Your task to perform on an android device: toggle priority inbox in the gmail app Image 0: 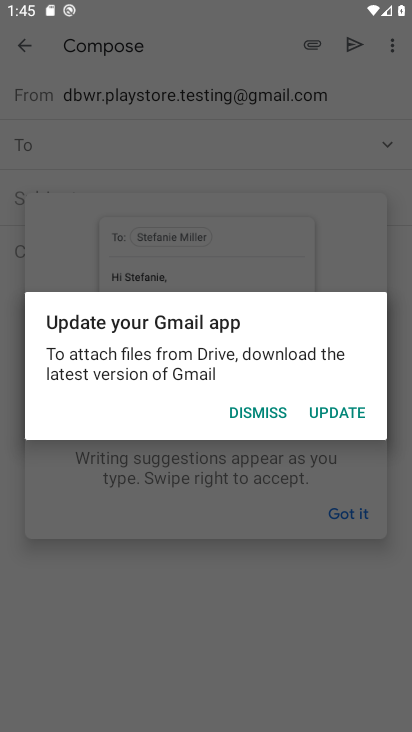
Step 0: press home button
Your task to perform on an android device: toggle priority inbox in the gmail app Image 1: 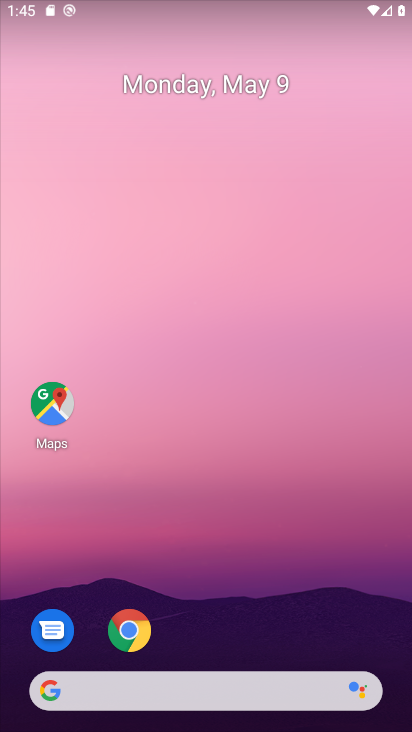
Step 1: drag from (216, 621) to (314, 74)
Your task to perform on an android device: toggle priority inbox in the gmail app Image 2: 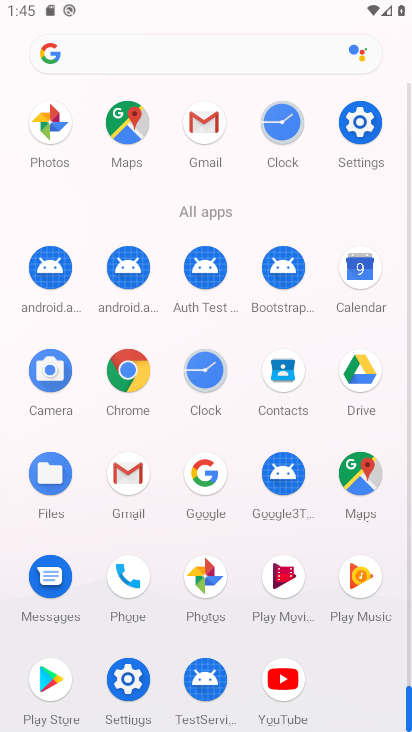
Step 2: click (135, 475)
Your task to perform on an android device: toggle priority inbox in the gmail app Image 3: 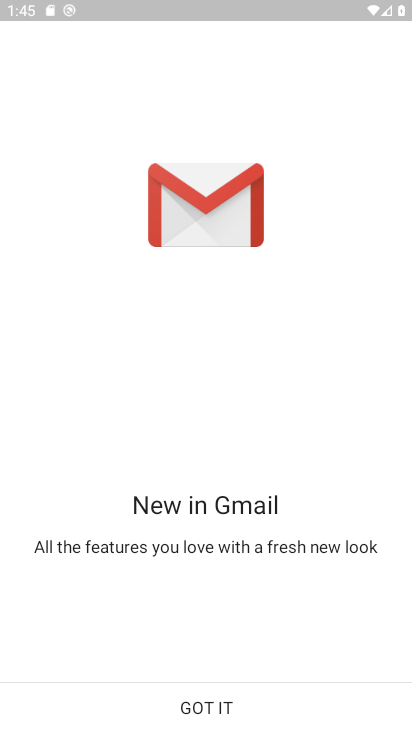
Step 3: click (247, 705)
Your task to perform on an android device: toggle priority inbox in the gmail app Image 4: 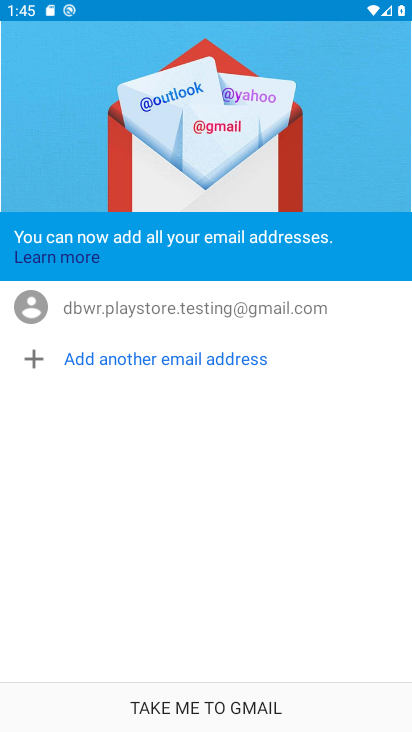
Step 4: click (247, 705)
Your task to perform on an android device: toggle priority inbox in the gmail app Image 5: 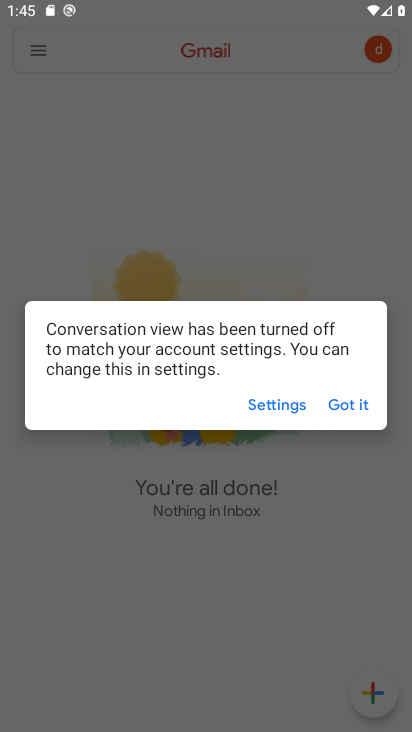
Step 5: click (352, 406)
Your task to perform on an android device: toggle priority inbox in the gmail app Image 6: 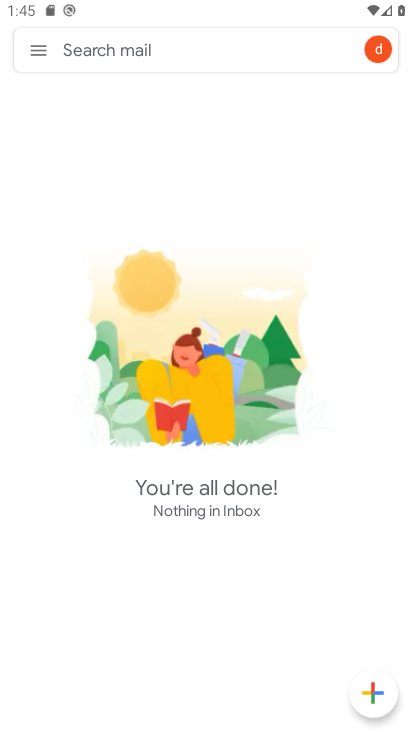
Step 6: click (42, 58)
Your task to perform on an android device: toggle priority inbox in the gmail app Image 7: 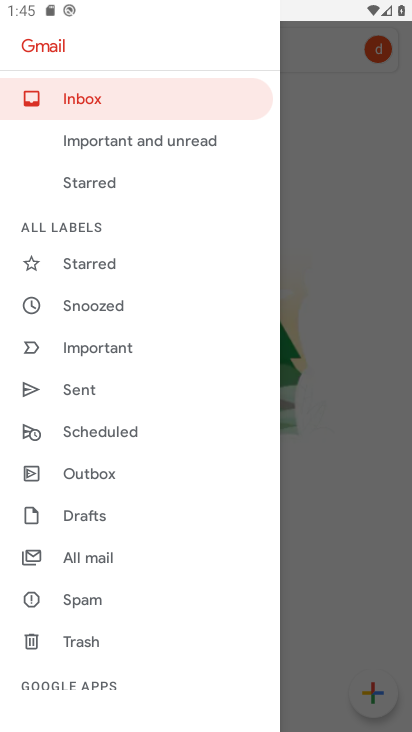
Step 7: drag from (73, 654) to (128, 374)
Your task to perform on an android device: toggle priority inbox in the gmail app Image 8: 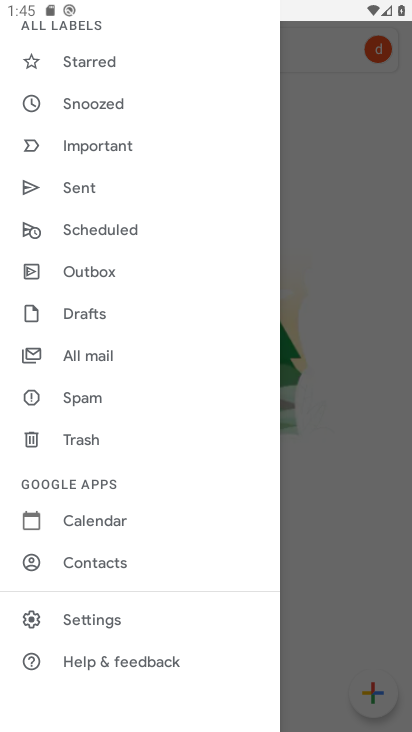
Step 8: drag from (107, 611) to (132, 395)
Your task to perform on an android device: toggle priority inbox in the gmail app Image 9: 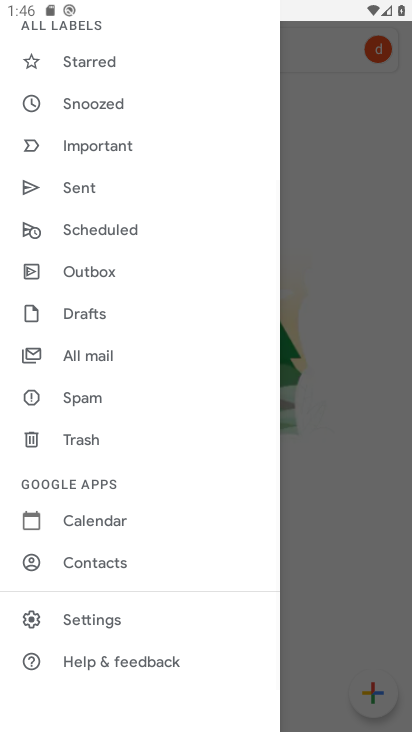
Step 9: click (82, 616)
Your task to perform on an android device: toggle priority inbox in the gmail app Image 10: 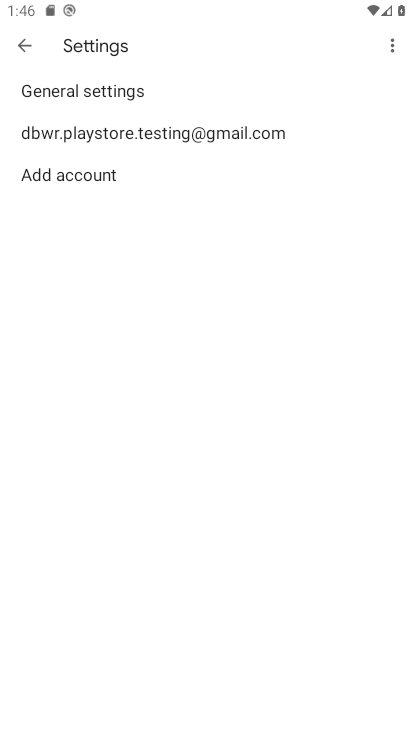
Step 10: click (120, 130)
Your task to perform on an android device: toggle priority inbox in the gmail app Image 11: 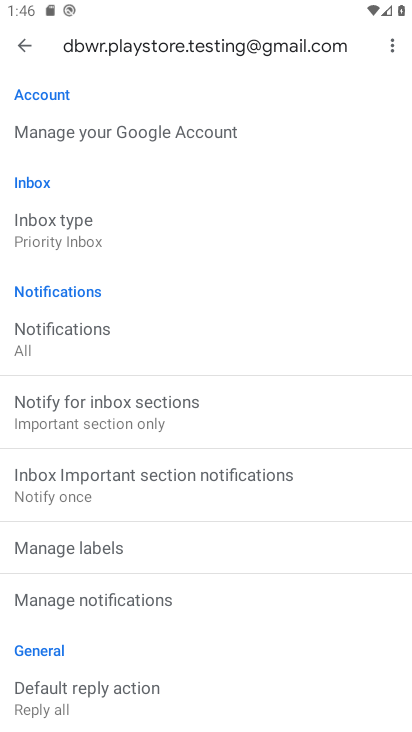
Step 11: click (96, 237)
Your task to perform on an android device: toggle priority inbox in the gmail app Image 12: 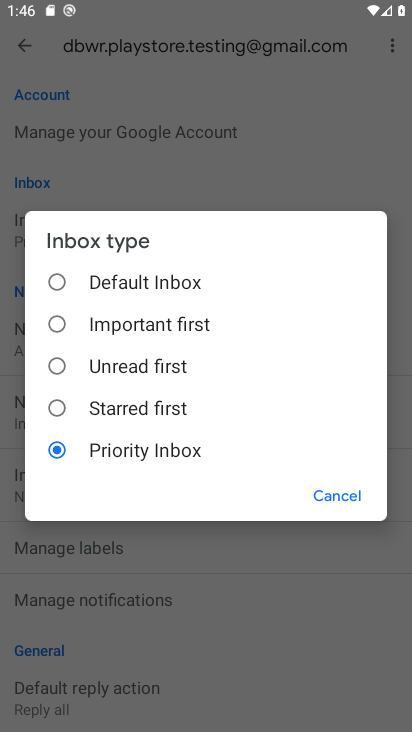
Step 12: click (141, 284)
Your task to perform on an android device: toggle priority inbox in the gmail app Image 13: 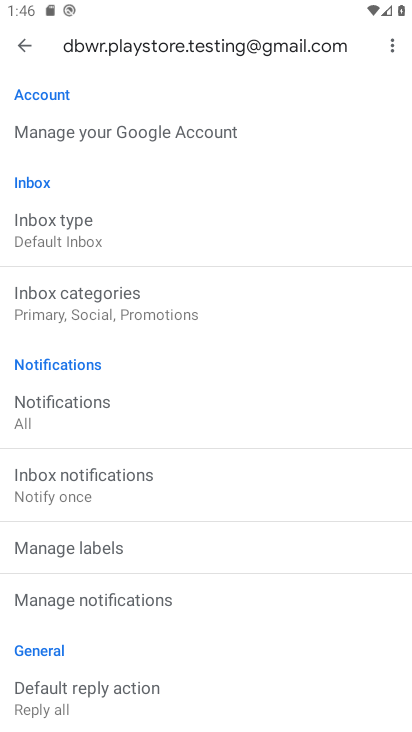
Step 13: task complete